Your task to perform on an android device: Open calendar and show me the third week of next month Image 0: 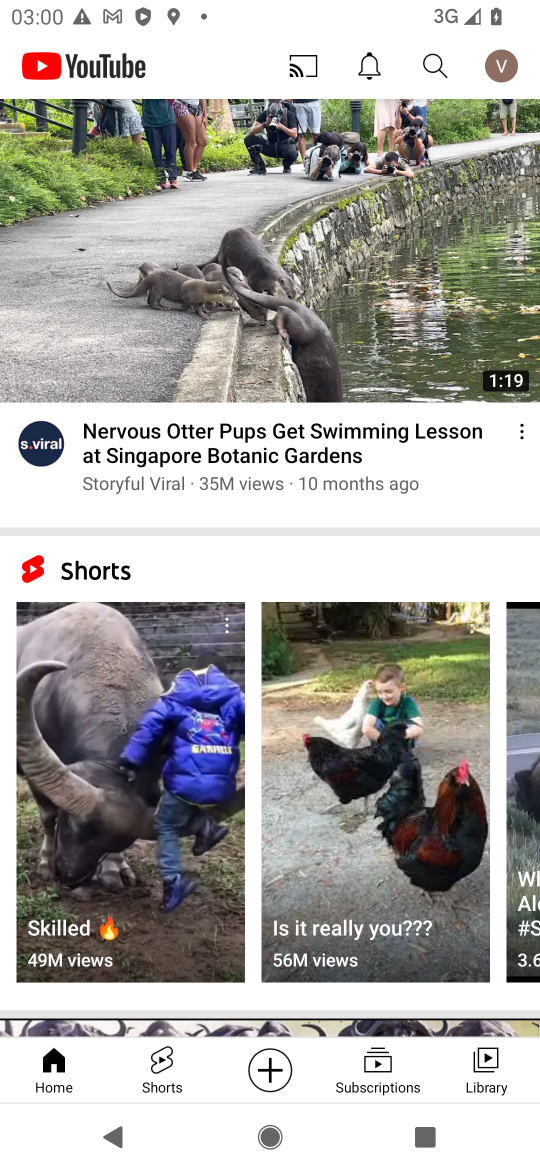
Step 0: press home button
Your task to perform on an android device: Open calendar and show me the third week of next month Image 1: 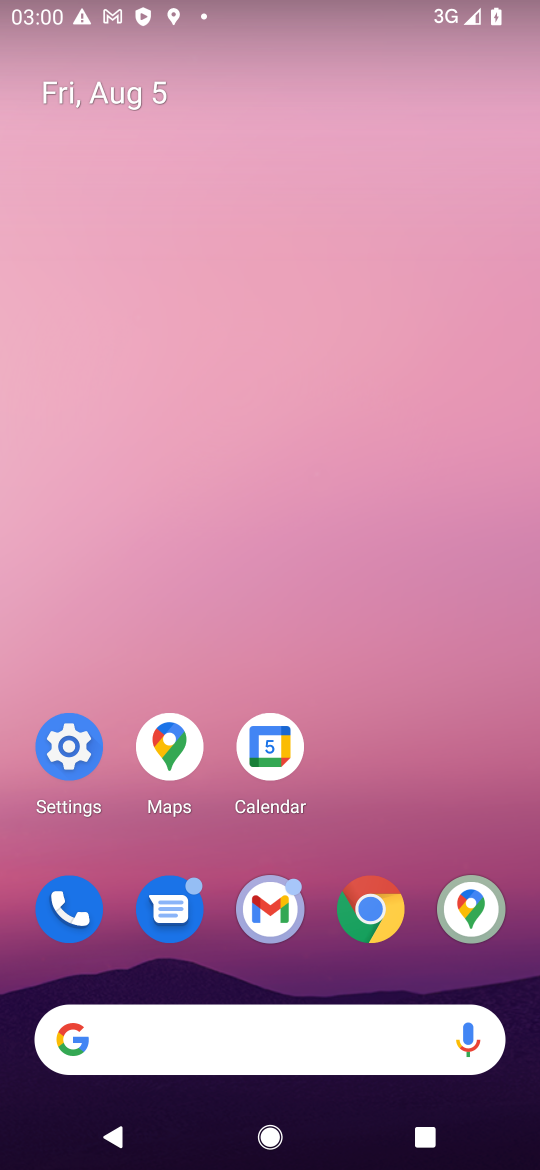
Step 1: click (264, 733)
Your task to perform on an android device: Open calendar and show me the third week of next month Image 2: 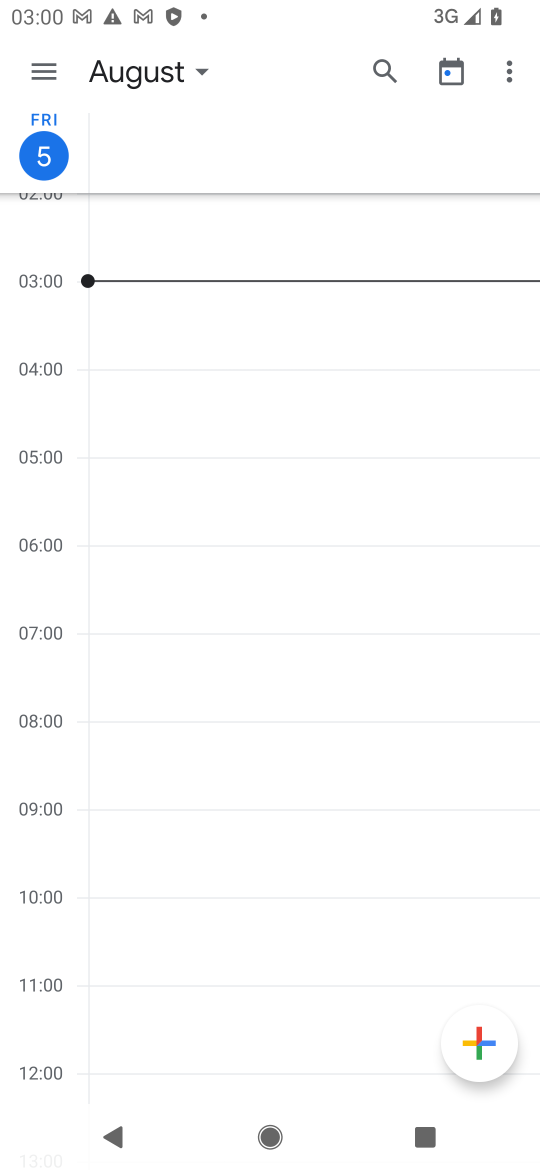
Step 2: click (35, 63)
Your task to perform on an android device: Open calendar and show me the third week of next month Image 3: 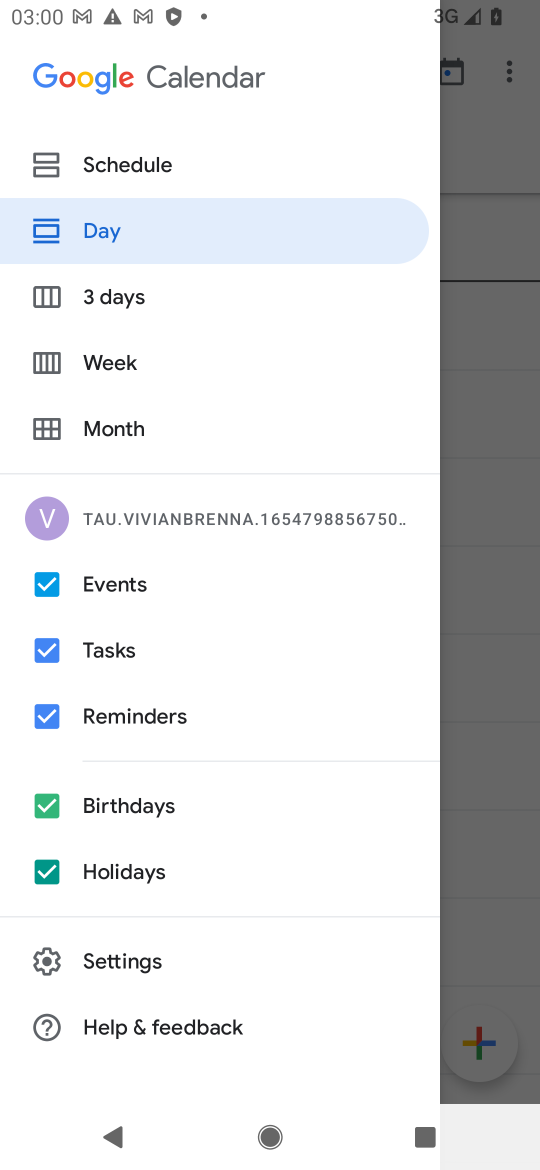
Step 3: click (104, 349)
Your task to perform on an android device: Open calendar and show me the third week of next month Image 4: 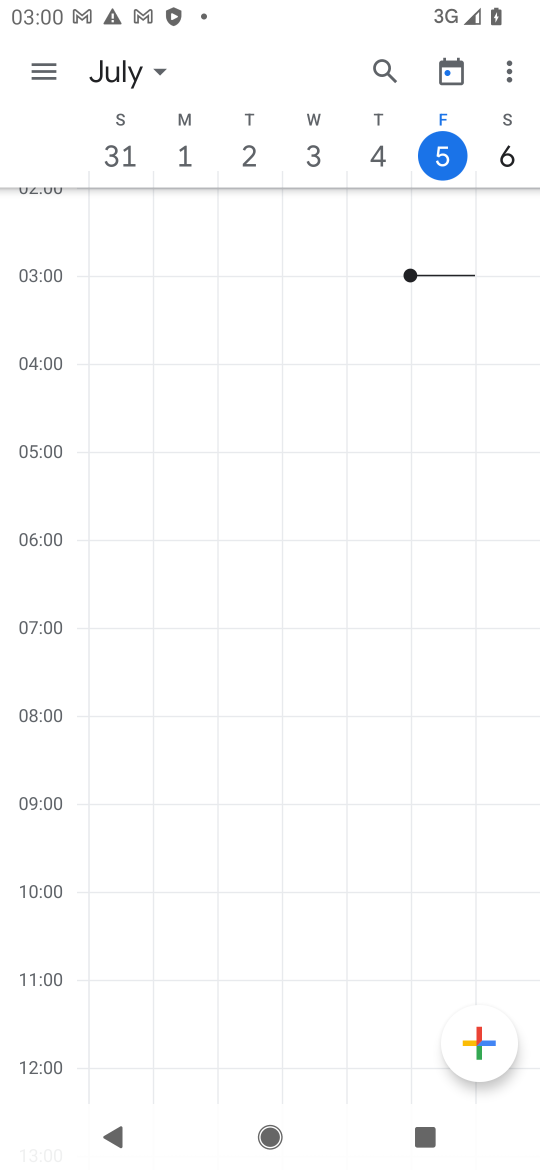
Step 4: click (153, 67)
Your task to perform on an android device: Open calendar and show me the third week of next month Image 5: 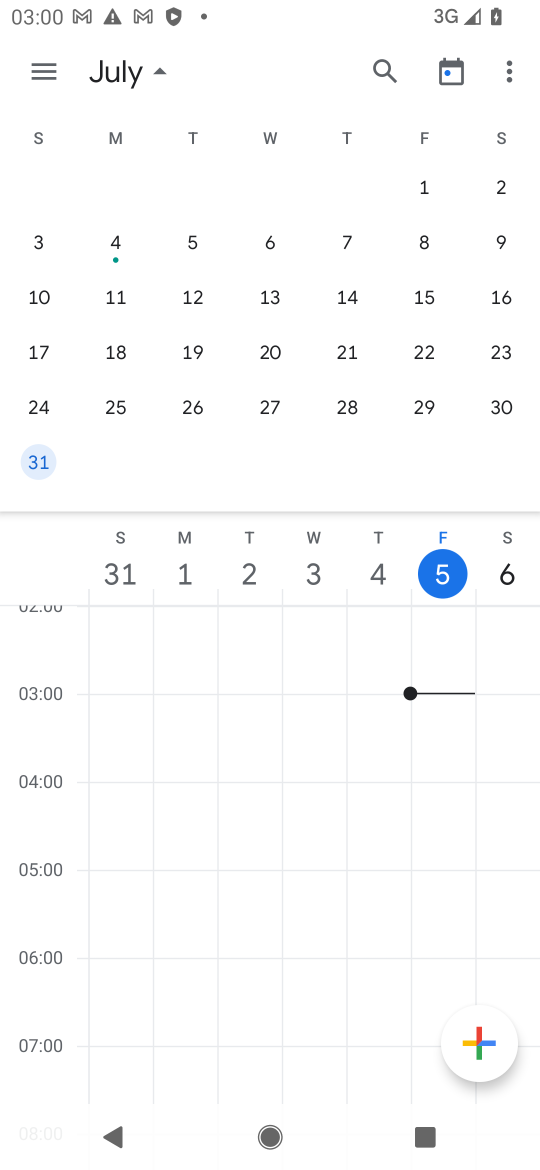
Step 5: drag from (479, 334) to (31, 280)
Your task to perform on an android device: Open calendar and show me the third week of next month Image 6: 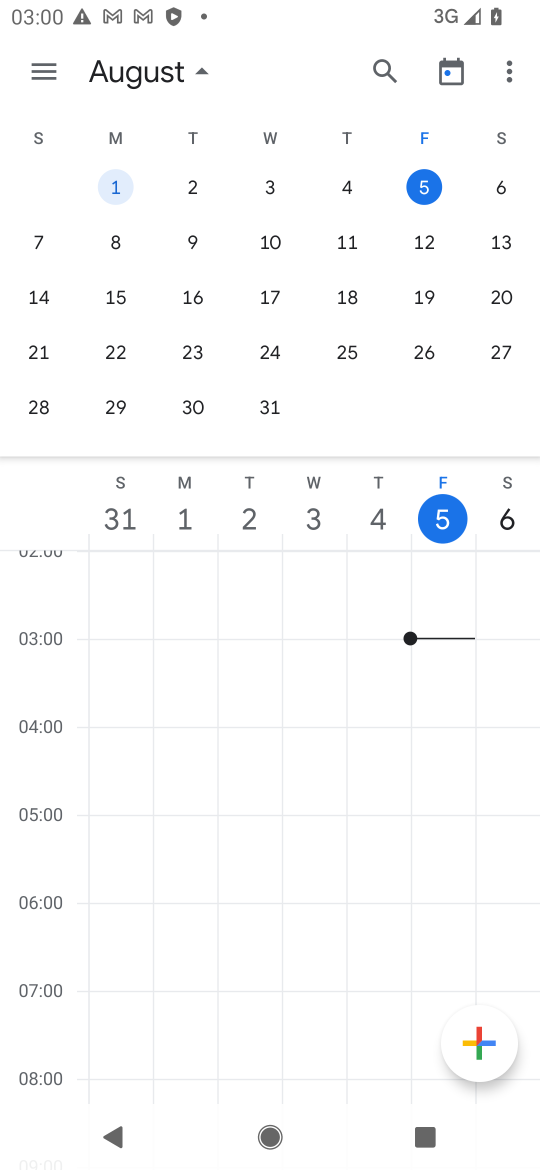
Step 6: drag from (514, 308) to (101, 289)
Your task to perform on an android device: Open calendar and show me the third week of next month Image 7: 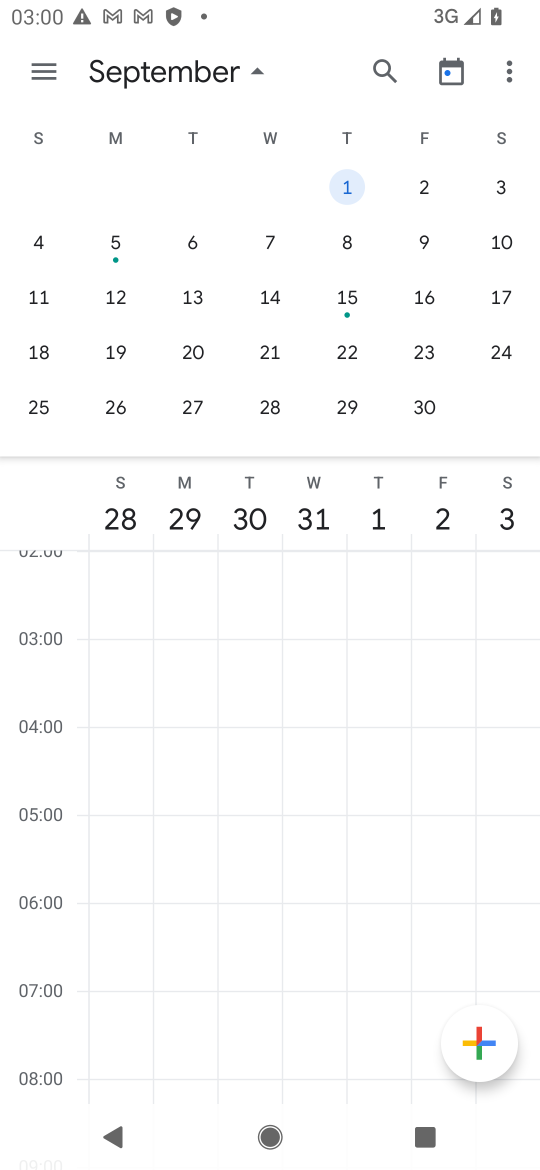
Step 7: click (270, 291)
Your task to perform on an android device: Open calendar and show me the third week of next month Image 8: 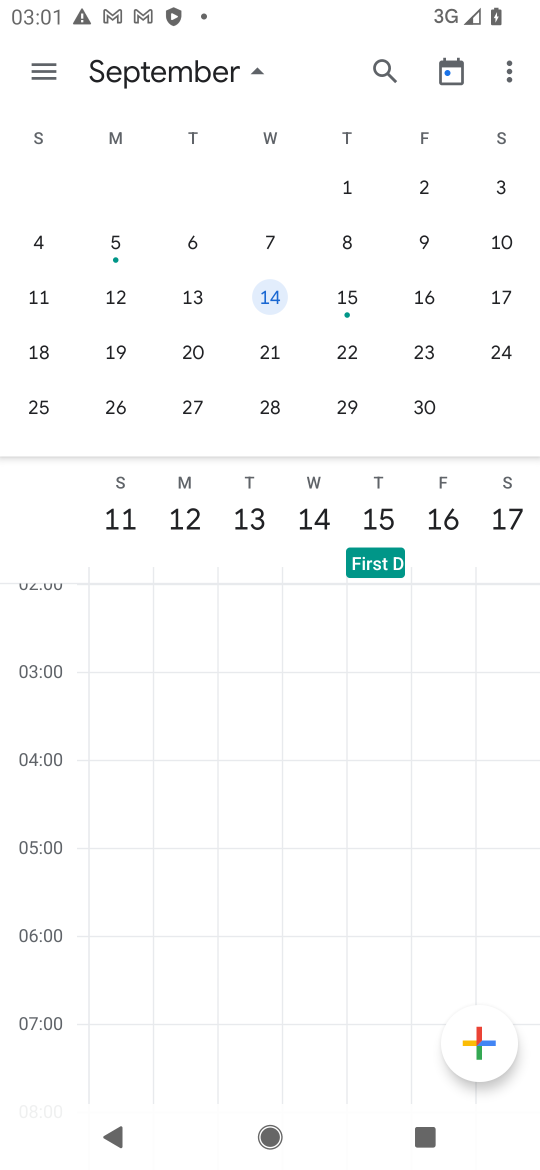
Step 8: task complete